Your task to perform on an android device: Open network settings Image 0: 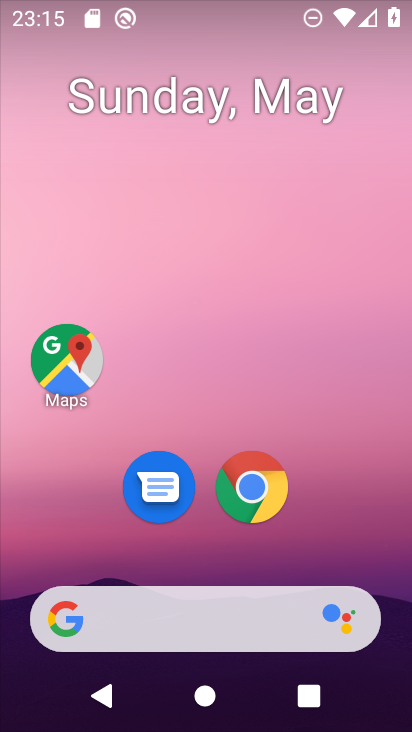
Step 0: drag from (370, 583) to (310, 65)
Your task to perform on an android device: Open network settings Image 1: 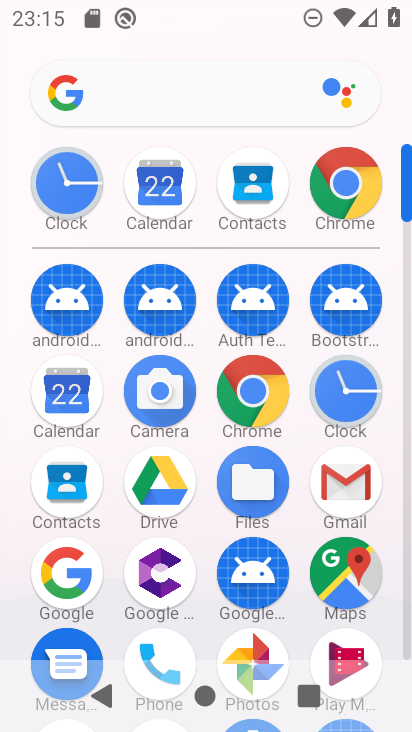
Step 1: click (405, 652)
Your task to perform on an android device: Open network settings Image 2: 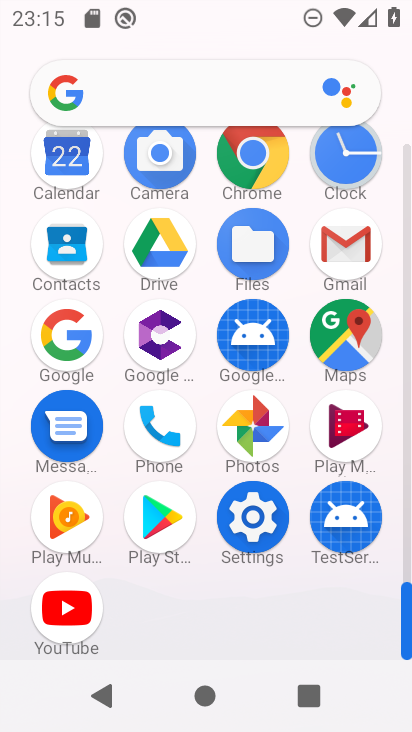
Step 2: click (238, 553)
Your task to perform on an android device: Open network settings Image 3: 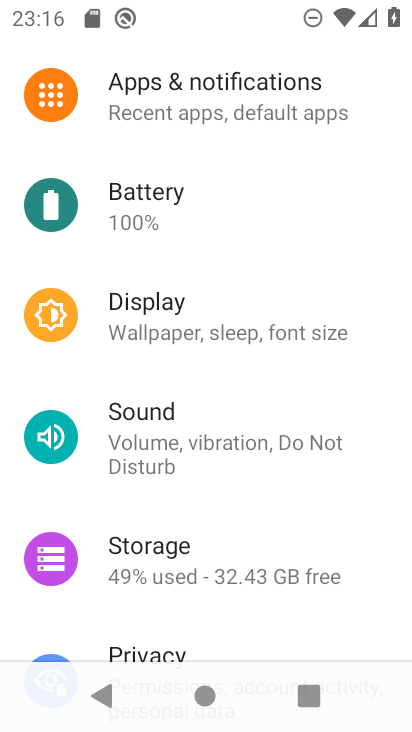
Step 3: drag from (198, 160) to (232, 538)
Your task to perform on an android device: Open network settings Image 4: 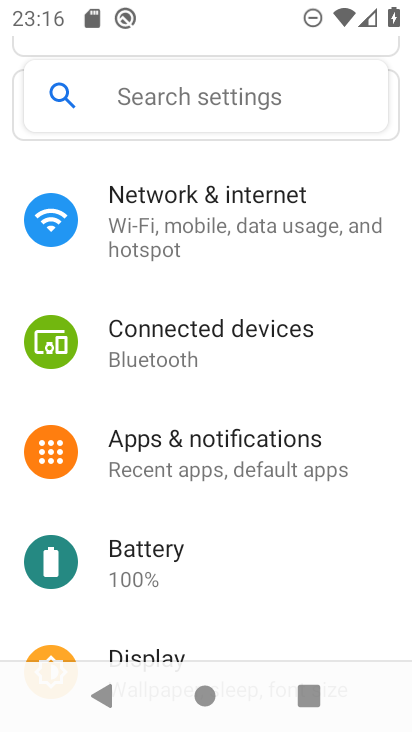
Step 4: click (227, 190)
Your task to perform on an android device: Open network settings Image 5: 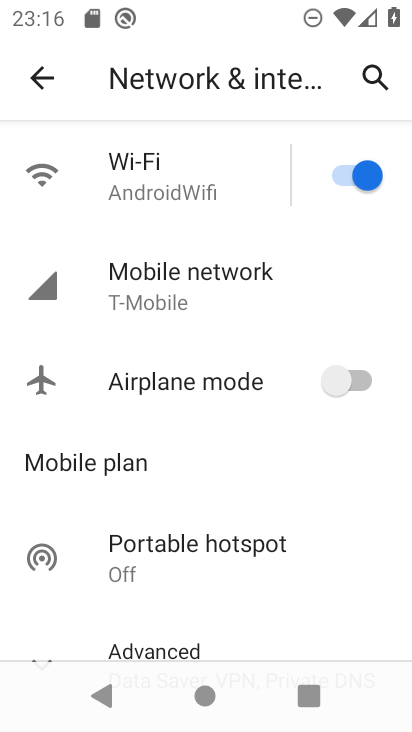
Step 5: task complete